Your task to perform on an android device: Open my contact list Image 0: 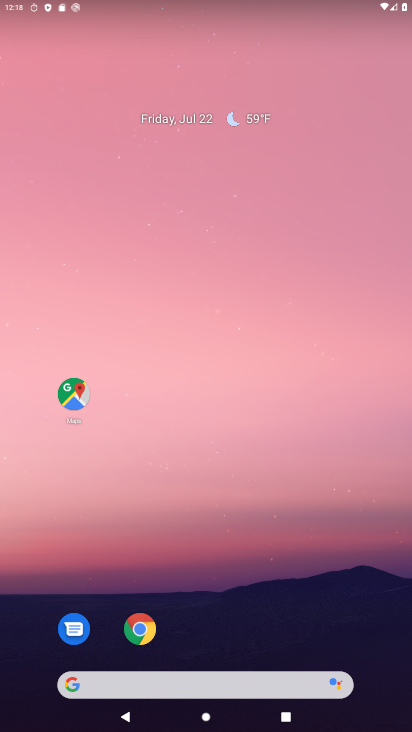
Step 0: drag from (214, 626) to (187, 28)
Your task to perform on an android device: Open my contact list Image 1: 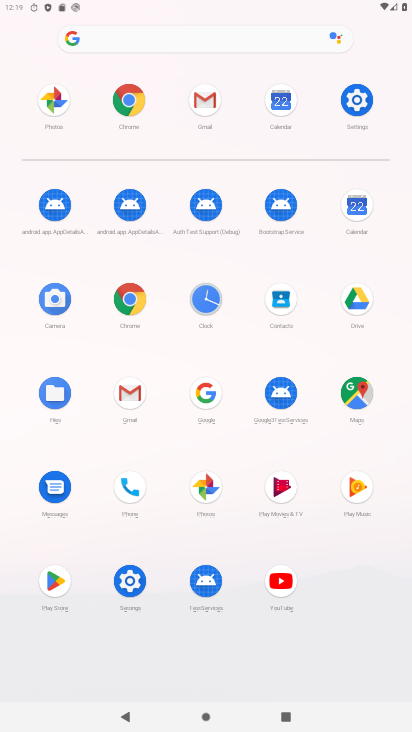
Step 1: click (284, 307)
Your task to perform on an android device: Open my contact list Image 2: 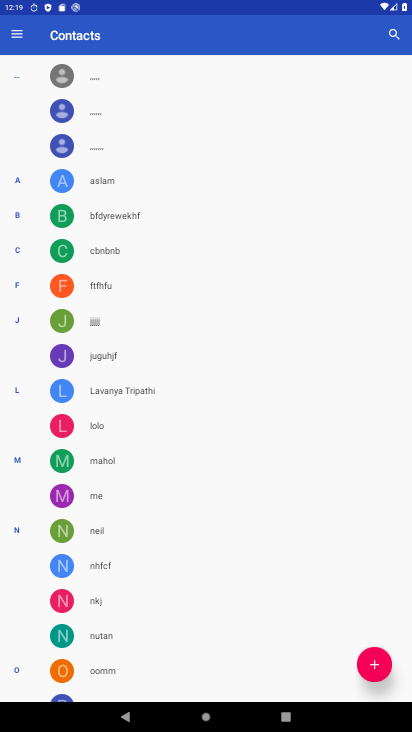
Step 2: task complete